Your task to perform on an android device: turn on notifications settings in the gmail app Image 0: 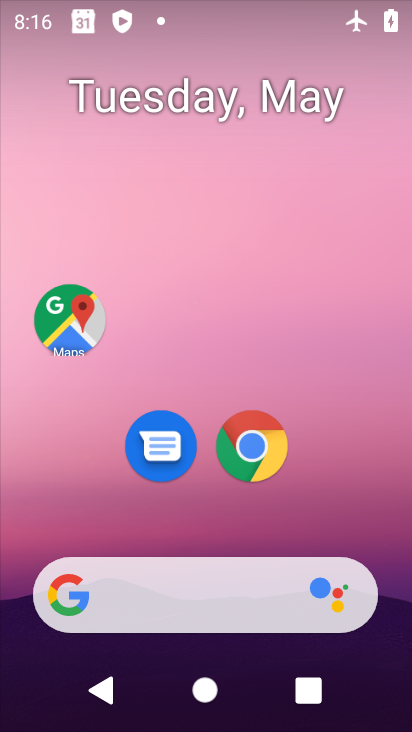
Step 0: drag from (358, 532) to (333, 0)
Your task to perform on an android device: turn on notifications settings in the gmail app Image 1: 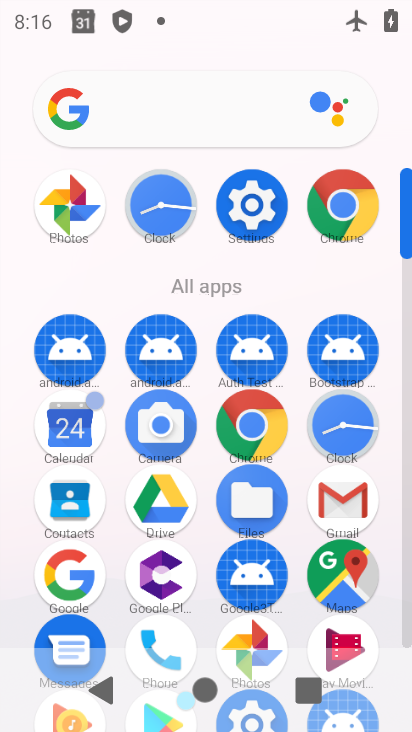
Step 1: click (336, 501)
Your task to perform on an android device: turn on notifications settings in the gmail app Image 2: 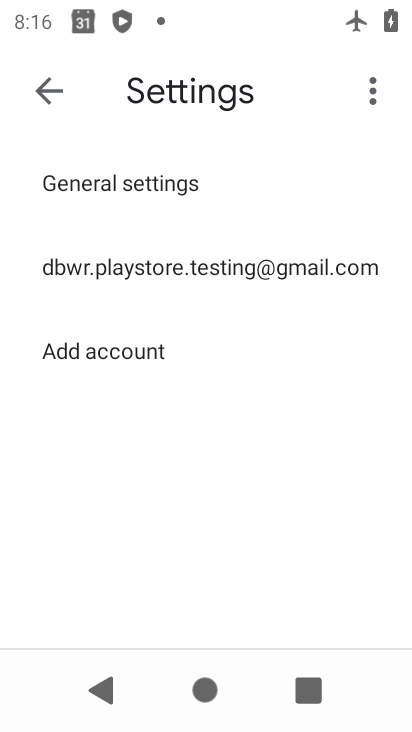
Step 2: click (119, 188)
Your task to perform on an android device: turn on notifications settings in the gmail app Image 3: 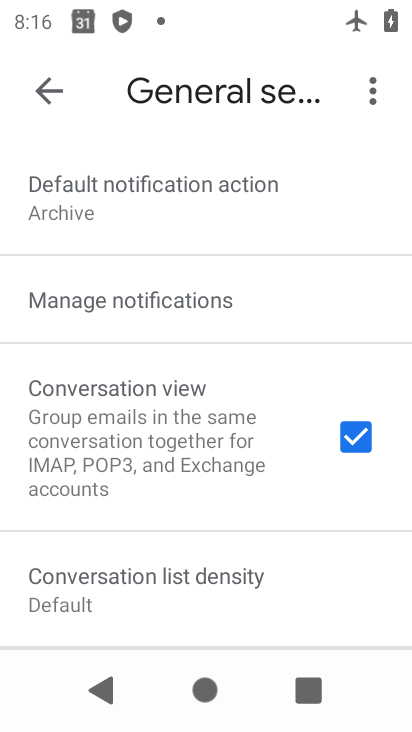
Step 3: click (126, 296)
Your task to perform on an android device: turn on notifications settings in the gmail app Image 4: 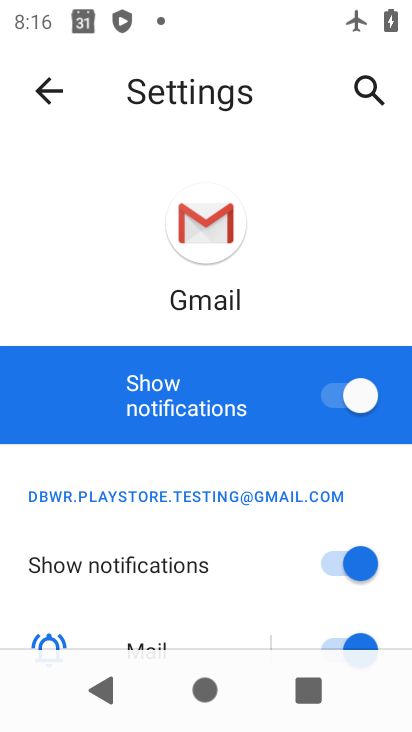
Step 4: task complete